Your task to perform on an android device: Check the settings for the Amazon Prime Video app Image 0: 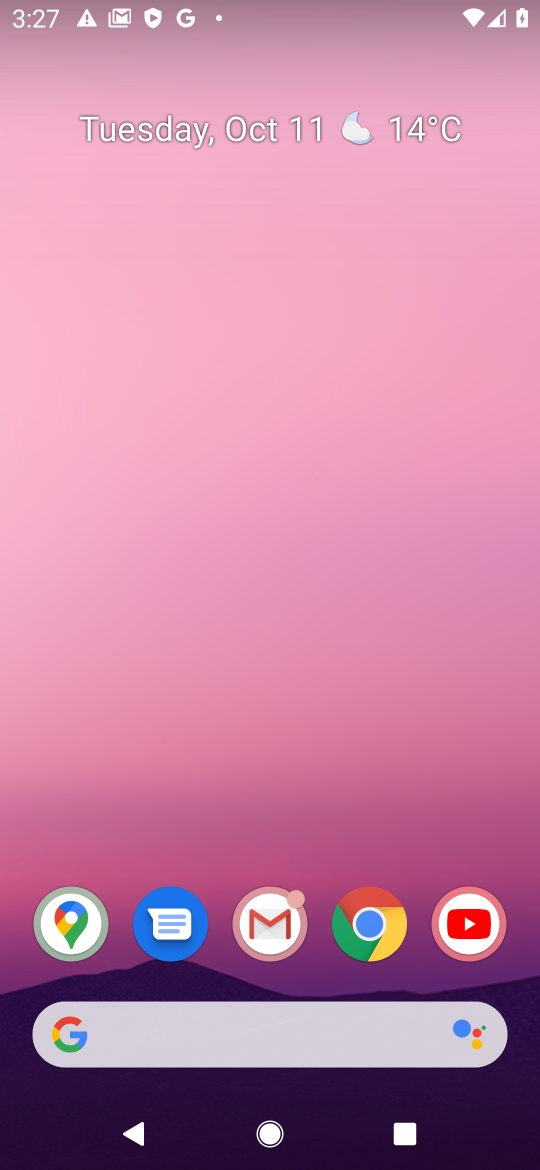
Step 0: drag from (349, 872) to (225, 247)
Your task to perform on an android device: Check the settings for the Amazon Prime Video app Image 1: 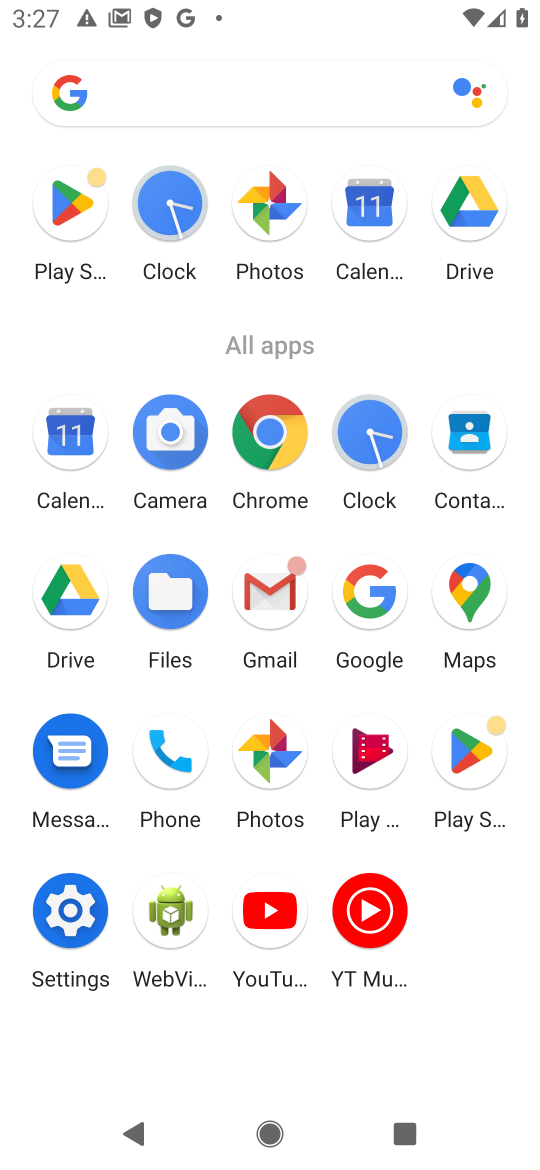
Step 1: task complete